Your task to perform on an android device: Open eBay Image 0: 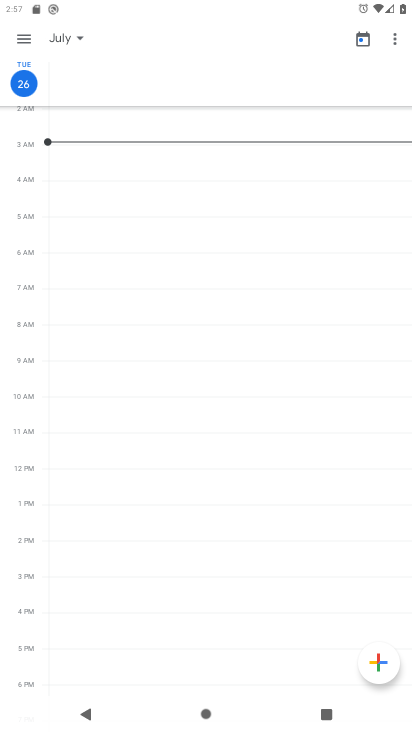
Step 0: press home button
Your task to perform on an android device: Open eBay Image 1: 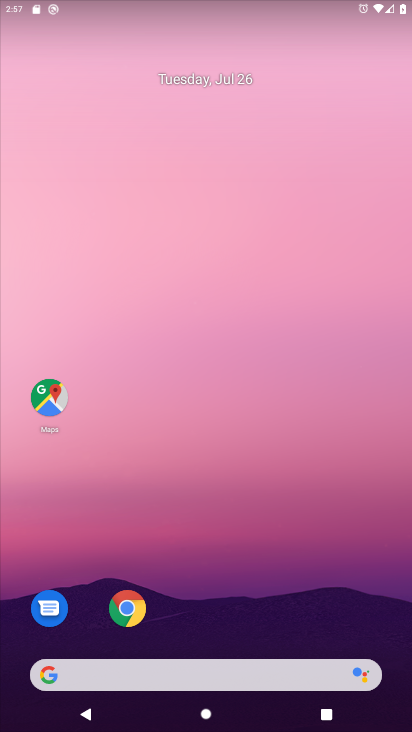
Step 1: click (137, 614)
Your task to perform on an android device: Open eBay Image 2: 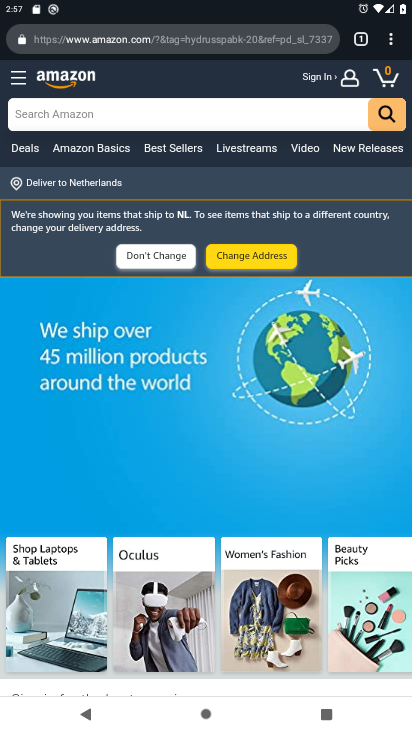
Step 2: click (108, 43)
Your task to perform on an android device: Open eBay Image 3: 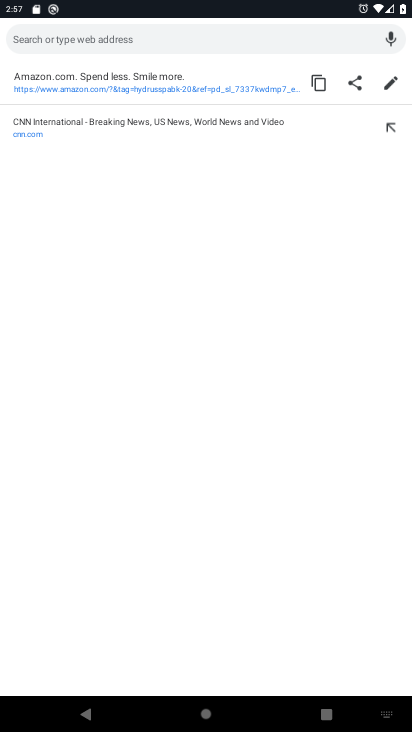
Step 3: type "ebay"
Your task to perform on an android device: Open eBay Image 4: 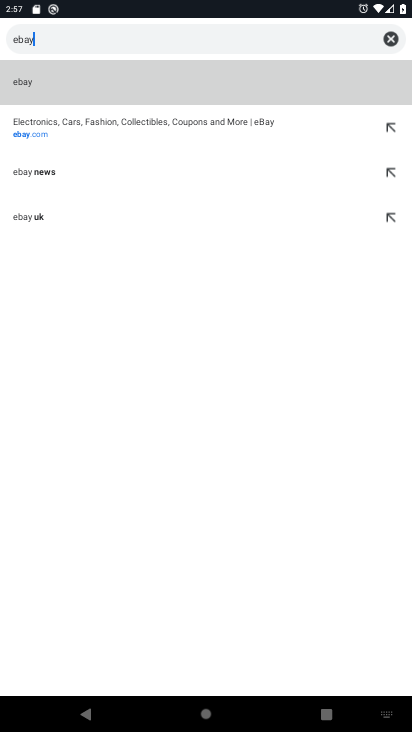
Step 4: click (32, 76)
Your task to perform on an android device: Open eBay Image 5: 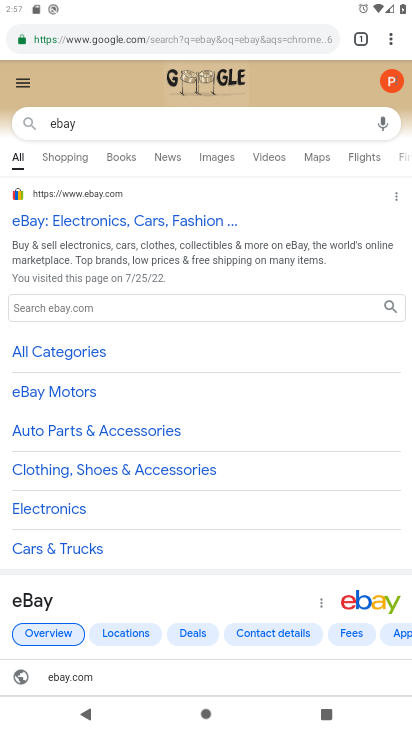
Step 5: click (152, 218)
Your task to perform on an android device: Open eBay Image 6: 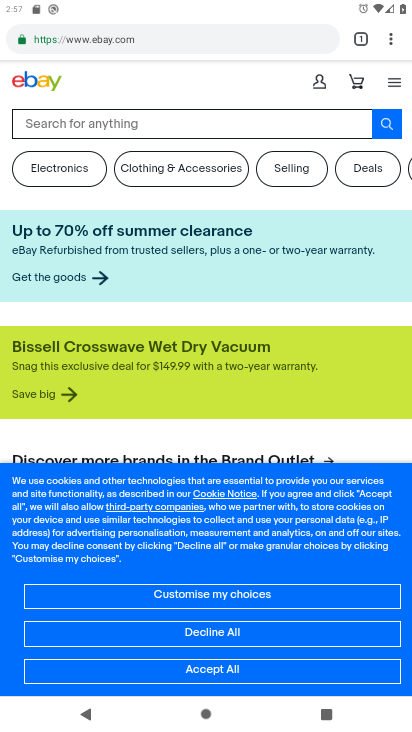
Step 6: task complete